Your task to perform on an android device: Add logitech g pro to the cart on ebay.com, then select checkout. Image 0: 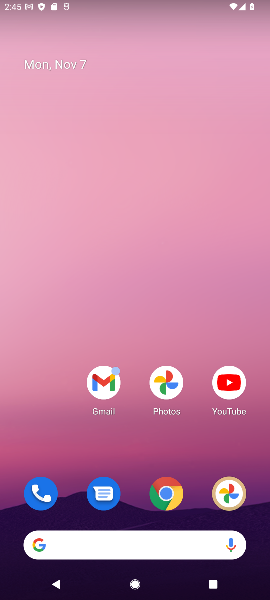
Step 0: drag from (126, 323) to (126, 86)
Your task to perform on an android device: Add logitech g pro to the cart on ebay.com, then select checkout. Image 1: 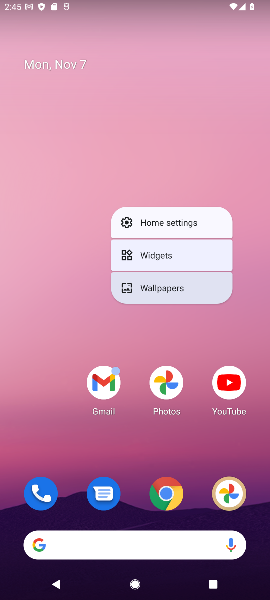
Step 1: click (52, 273)
Your task to perform on an android device: Add logitech g pro to the cart on ebay.com, then select checkout. Image 2: 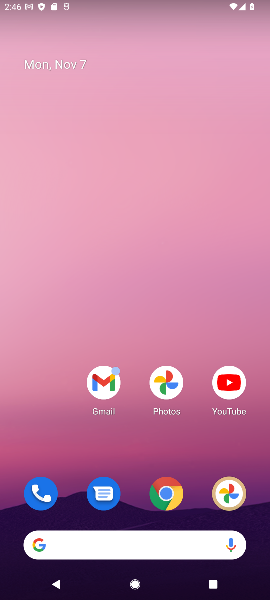
Step 2: drag from (131, 456) to (122, 56)
Your task to perform on an android device: Add logitech g pro to the cart on ebay.com, then select checkout. Image 3: 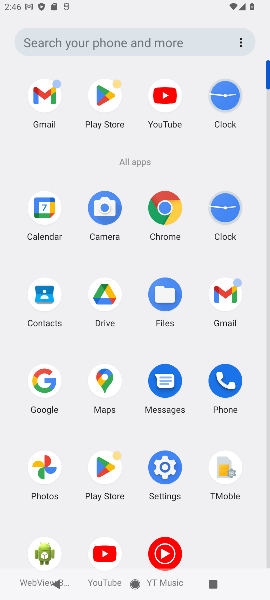
Step 3: click (162, 201)
Your task to perform on an android device: Add logitech g pro to the cart on ebay.com, then select checkout. Image 4: 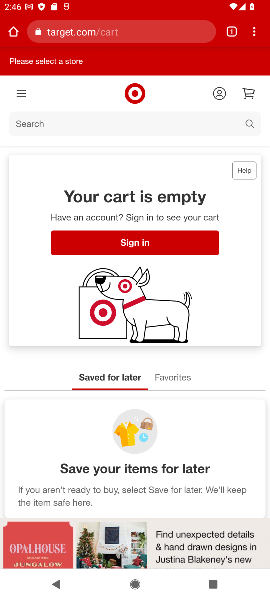
Step 4: click (74, 26)
Your task to perform on an android device: Add logitech g pro to the cart on ebay.com, then select checkout. Image 5: 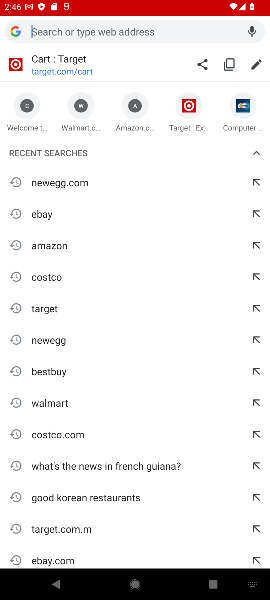
Step 5: click (44, 213)
Your task to perform on an android device: Add logitech g pro to the cart on ebay.com, then select checkout. Image 6: 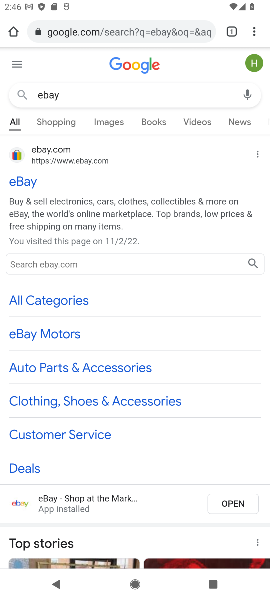
Step 6: click (29, 186)
Your task to perform on an android device: Add logitech g pro to the cart on ebay.com, then select checkout. Image 7: 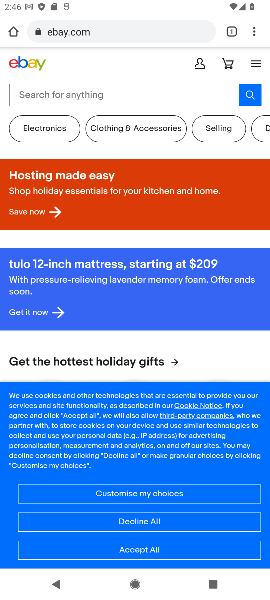
Step 7: click (137, 551)
Your task to perform on an android device: Add logitech g pro to the cart on ebay.com, then select checkout. Image 8: 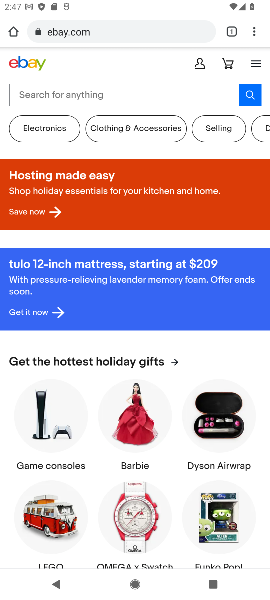
Step 8: click (55, 92)
Your task to perform on an android device: Add logitech g pro to the cart on ebay.com, then select checkout. Image 9: 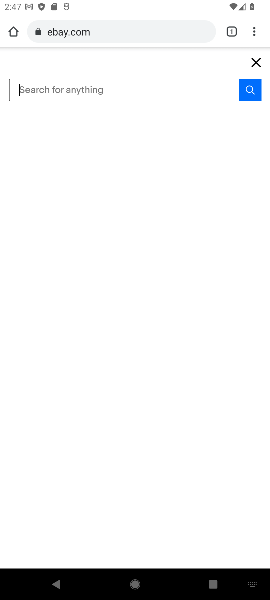
Step 9: type "logitech g pro"
Your task to perform on an android device: Add logitech g pro to the cart on ebay.com, then select checkout. Image 10: 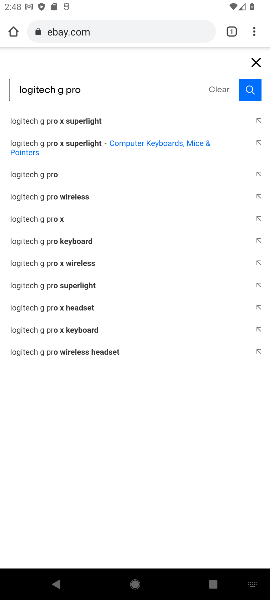
Step 10: click (248, 91)
Your task to perform on an android device: Add logitech g pro to the cart on ebay.com, then select checkout. Image 11: 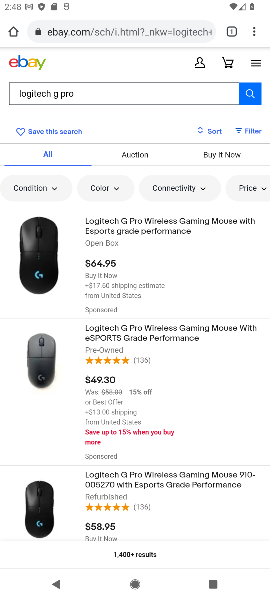
Step 11: click (145, 229)
Your task to perform on an android device: Add logitech g pro to the cart on ebay.com, then select checkout. Image 12: 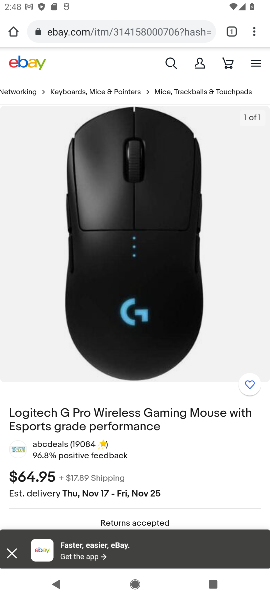
Step 12: drag from (174, 482) to (185, 210)
Your task to perform on an android device: Add logitech g pro to the cart on ebay.com, then select checkout. Image 13: 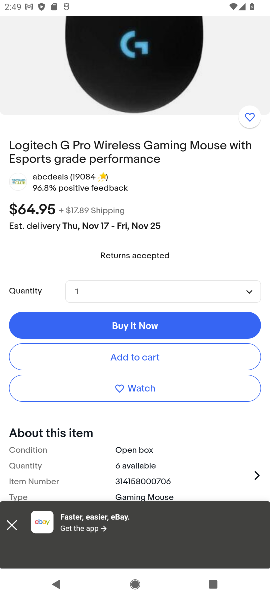
Step 13: click (142, 358)
Your task to perform on an android device: Add logitech g pro to the cart on ebay.com, then select checkout. Image 14: 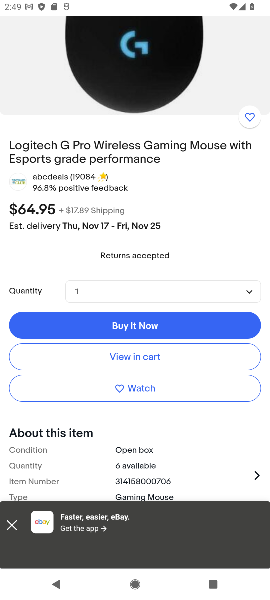
Step 14: click (131, 358)
Your task to perform on an android device: Add logitech g pro to the cart on ebay.com, then select checkout. Image 15: 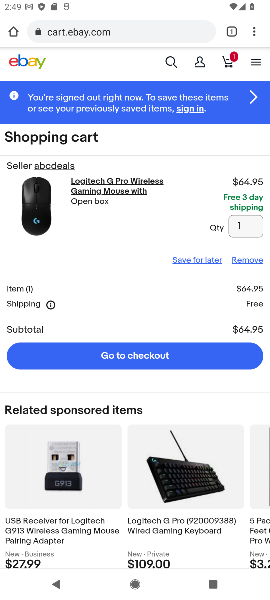
Step 15: click (127, 359)
Your task to perform on an android device: Add logitech g pro to the cart on ebay.com, then select checkout. Image 16: 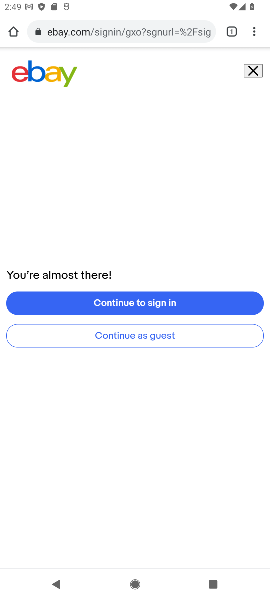
Step 16: task complete